Your task to perform on an android device: Open Wikipedia Image 0: 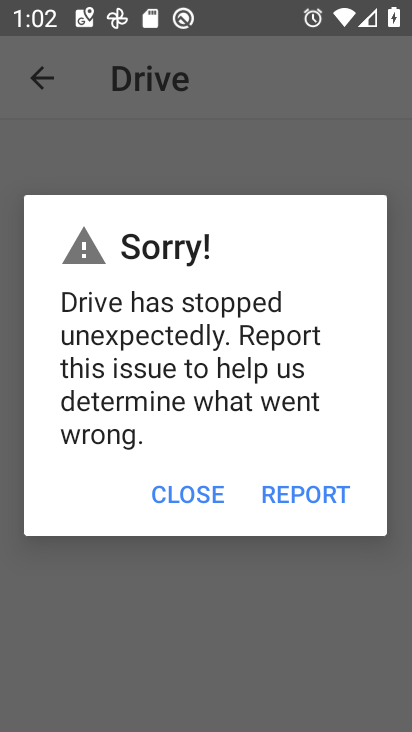
Step 0: press home button
Your task to perform on an android device: Open Wikipedia Image 1: 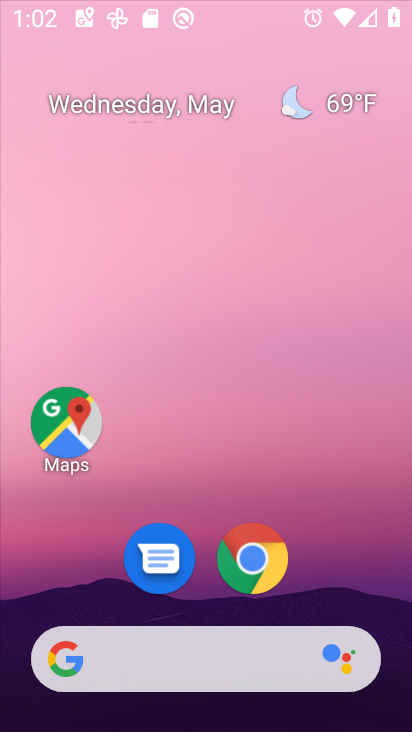
Step 1: drag from (381, 659) to (299, 81)
Your task to perform on an android device: Open Wikipedia Image 2: 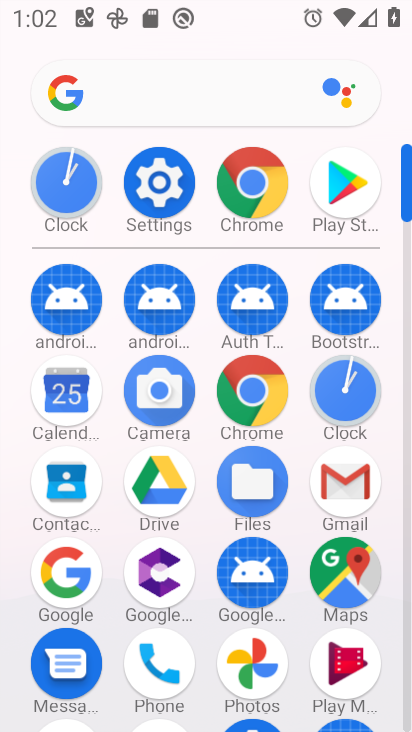
Step 2: click (80, 586)
Your task to perform on an android device: Open Wikipedia Image 3: 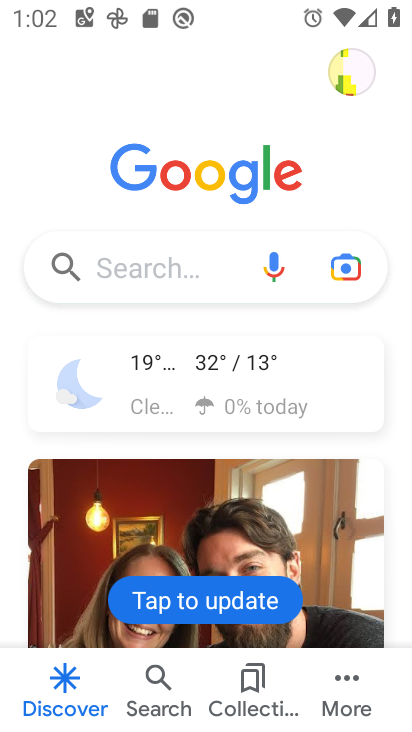
Step 3: click (163, 253)
Your task to perform on an android device: Open Wikipedia Image 4: 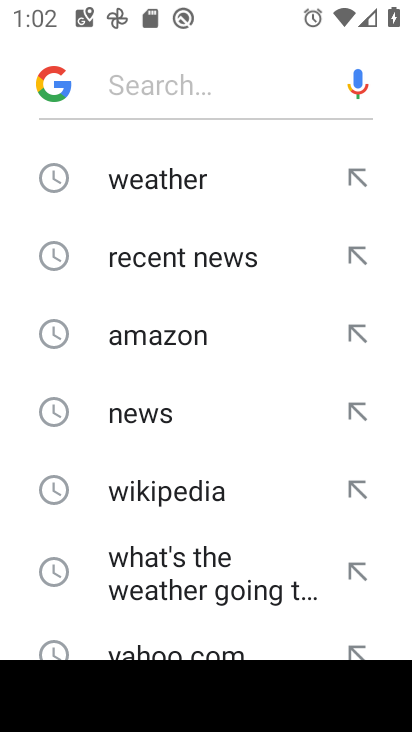
Step 4: click (176, 472)
Your task to perform on an android device: Open Wikipedia Image 5: 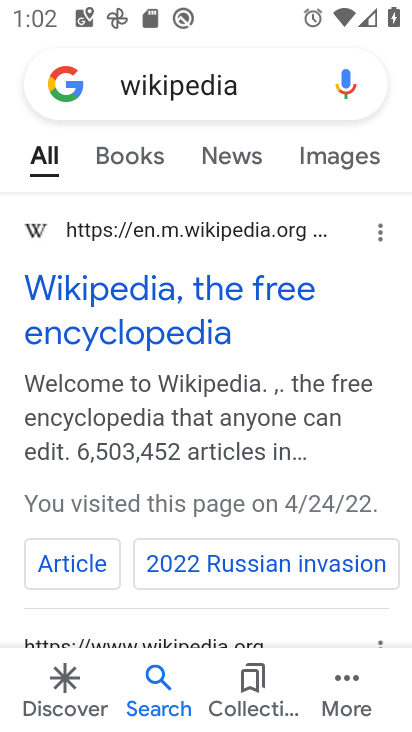
Step 5: task complete